Your task to perform on an android device: show emergency info Image 0: 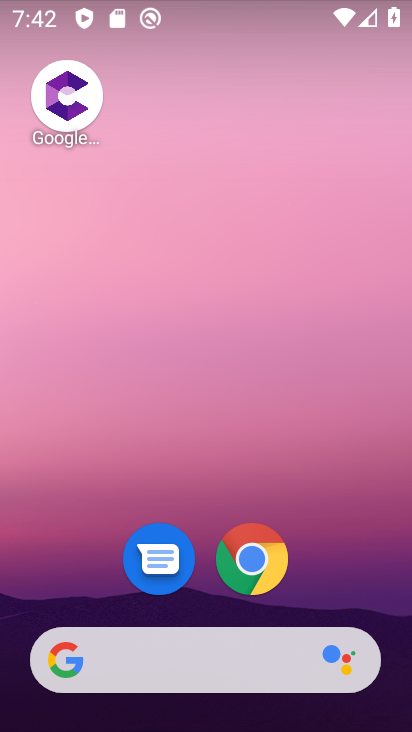
Step 0: drag from (15, 613) to (219, 156)
Your task to perform on an android device: show emergency info Image 1: 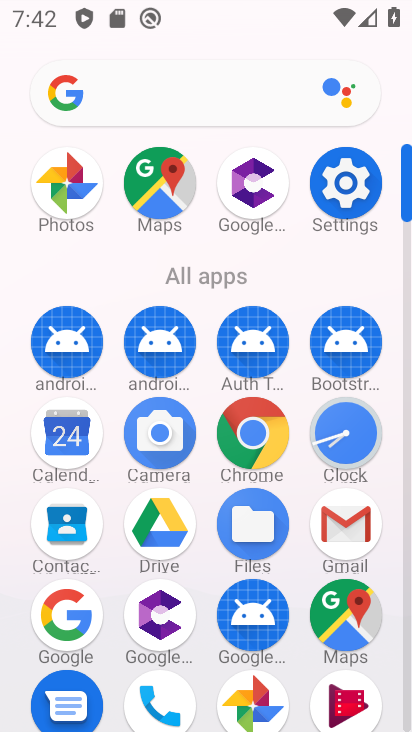
Step 1: click (375, 186)
Your task to perform on an android device: show emergency info Image 2: 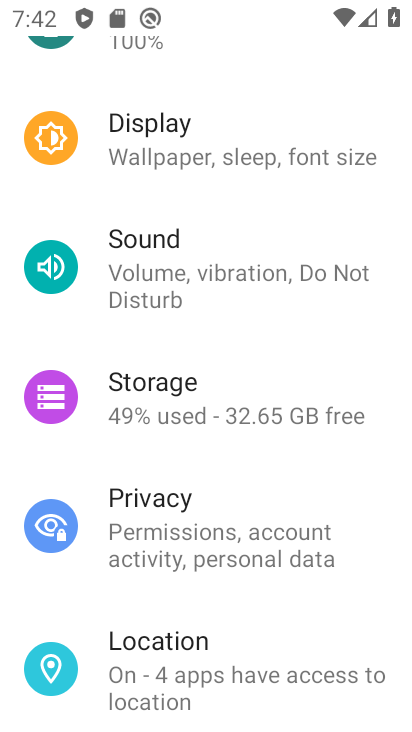
Step 2: drag from (132, 630) to (276, 192)
Your task to perform on an android device: show emergency info Image 3: 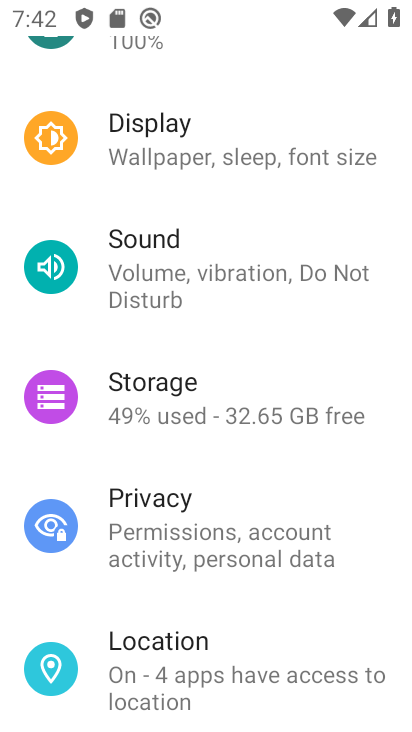
Step 3: drag from (101, 667) to (291, 294)
Your task to perform on an android device: show emergency info Image 4: 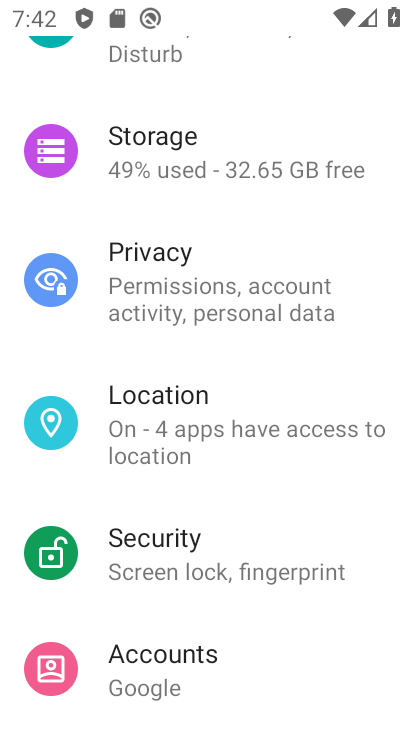
Step 4: drag from (126, 640) to (201, 270)
Your task to perform on an android device: show emergency info Image 5: 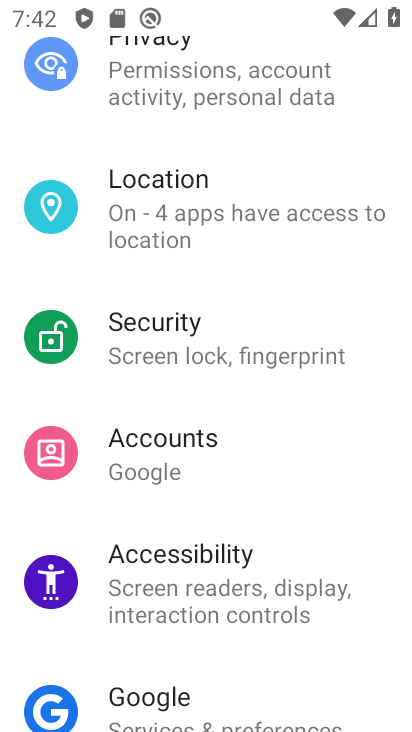
Step 5: drag from (107, 675) to (290, 225)
Your task to perform on an android device: show emergency info Image 6: 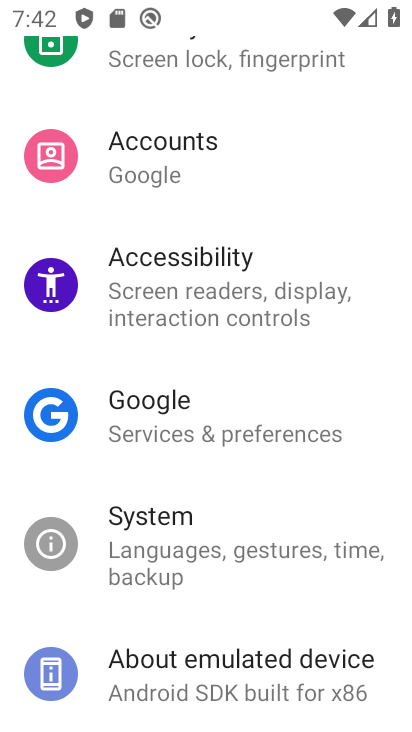
Step 6: drag from (127, 663) to (275, 294)
Your task to perform on an android device: show emergency info Image 7: 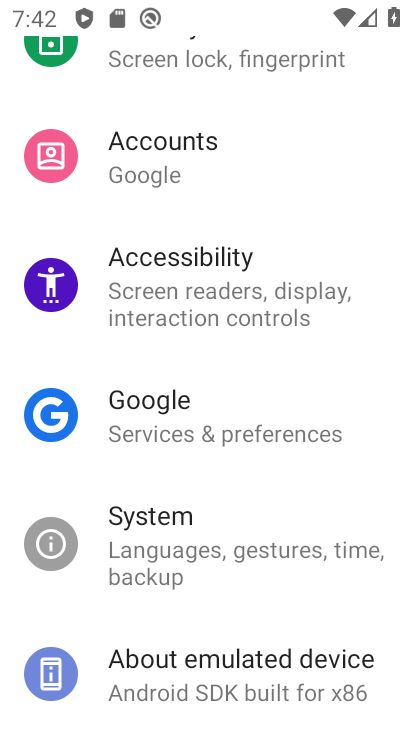
Step 7: click (183, 680)
Your task to perform on an android device: show emergency info Image 8: 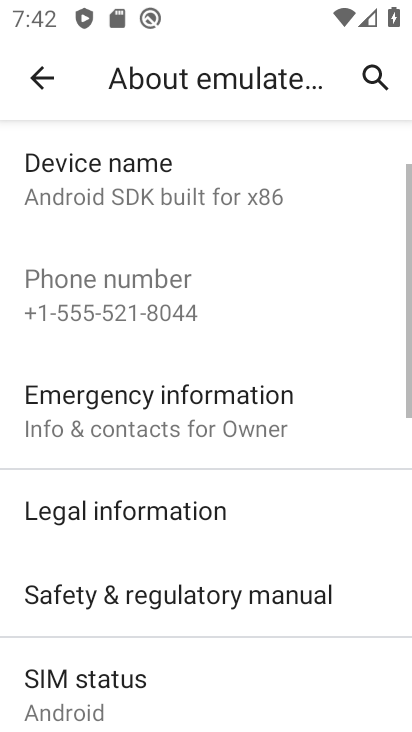
Step 8: click (138, 402)
Your task to perform on an android device: show emergency info Image 9: 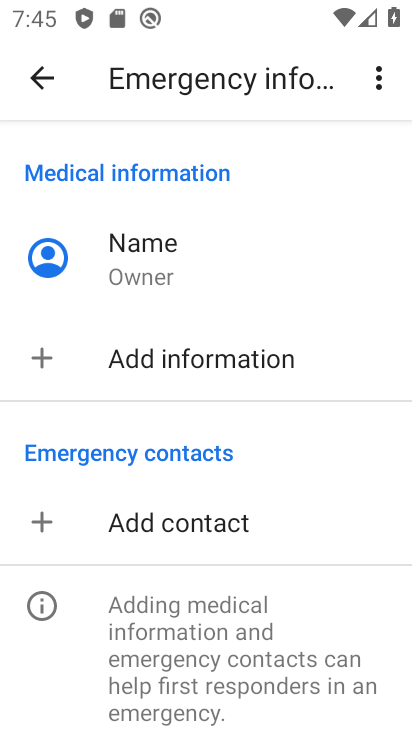
Step 9: task complete